Your task to perform on an android device: open chrome privacy settings Image 0: 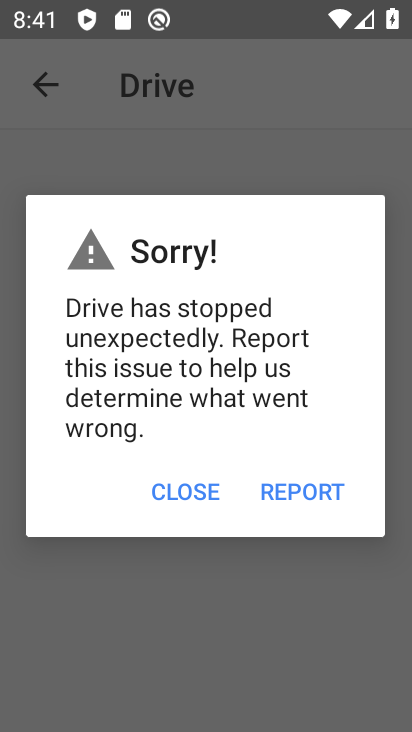
Step 0: press back button
Your task to perform on an android device: open chrome privacy settings Image 1: 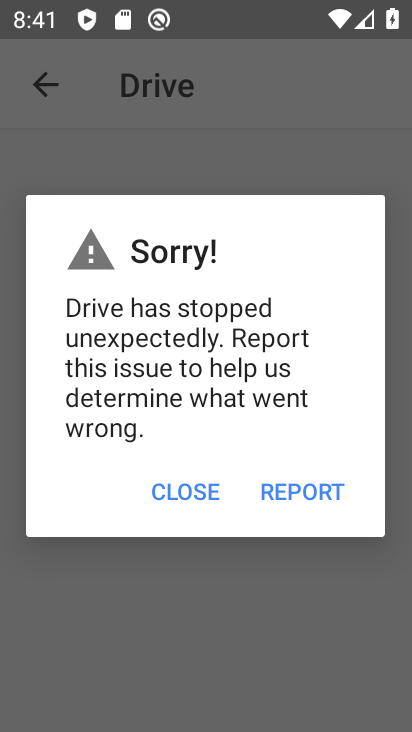
Step 1: press back button
Your task to perform on an android device: open chrome privacy settings Image 2: 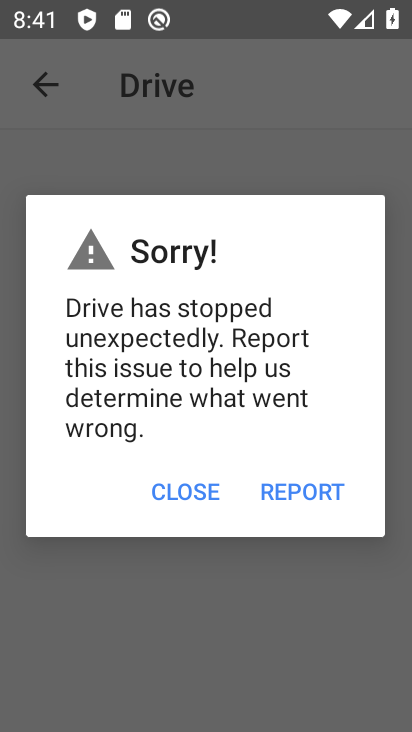
Step 2: press back button
Your task to perform on an android device: open chrome privacy settings Image 3: 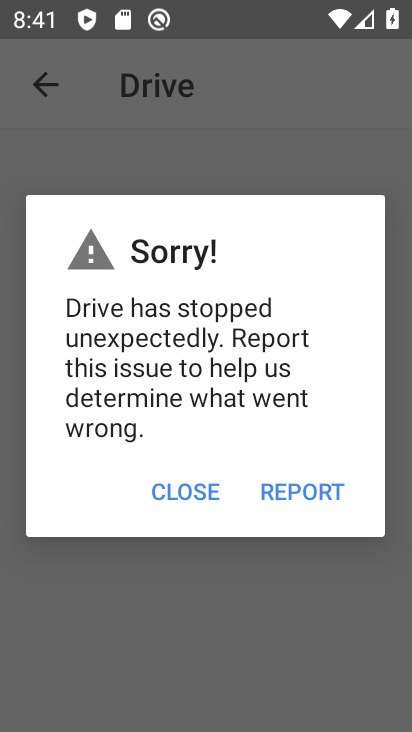
Step 3: press back button
Your task to perform on an android device: open chrome privacy settings Image 4: 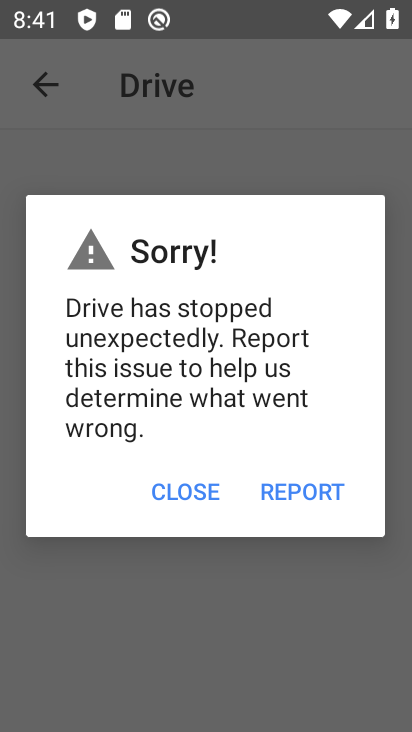
Step 4: press home button
Your task to perform on an android device: open chrome privacy settings Image 5: 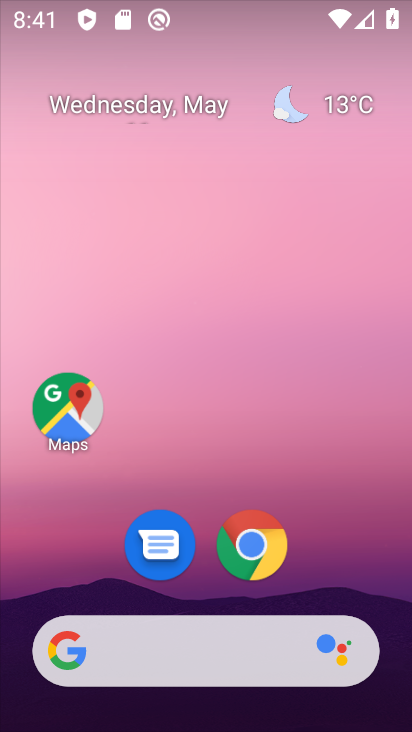
Step 5: drag from (333, 541) to (280, 4)
Your task to perform on an android device: open chrome privacy settings Image 6: 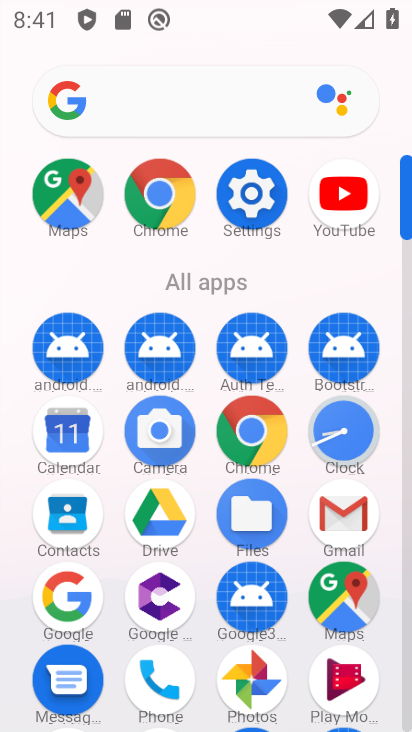
Step 6: drag from (16, 562) to (24, 224)
Your task to perform on an android device: open chrome privacy settings Image 7: 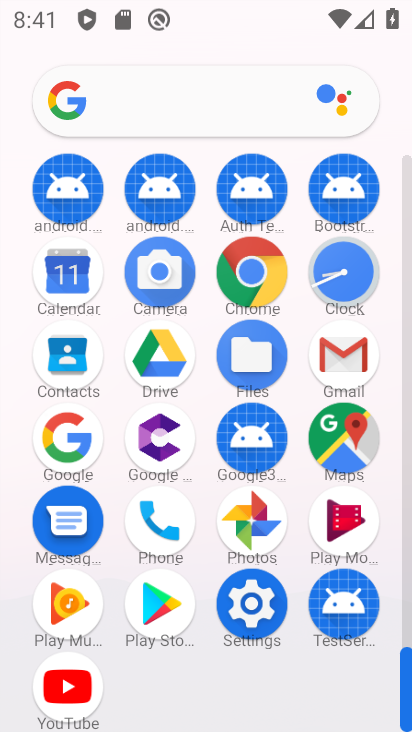
Step 7: click (249, 270)
Your task to perform on an android device: open chrome privacy settings Image 8: 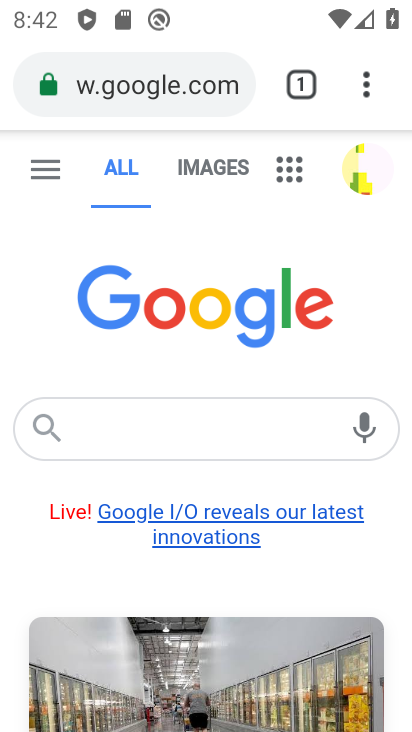
Step 8: drag from (364, 88) to (140, 599)
Your task to perform on an android device: open chrome privacy settings Image 9: 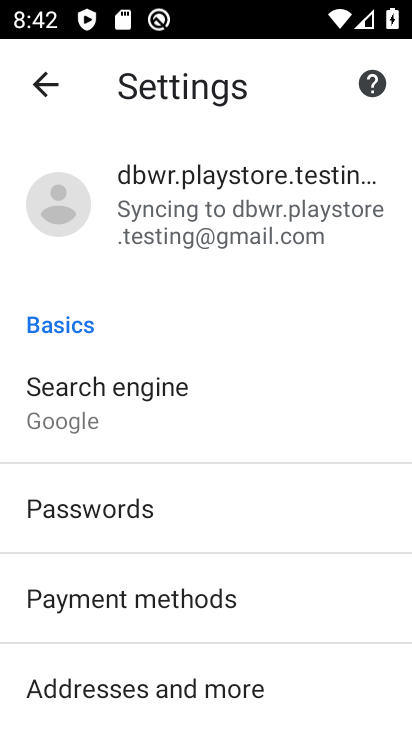
Step 9: drag from (244, 590) to (257, 257)
Your task to perform on an android device: open chrome privacy settings Image 10: 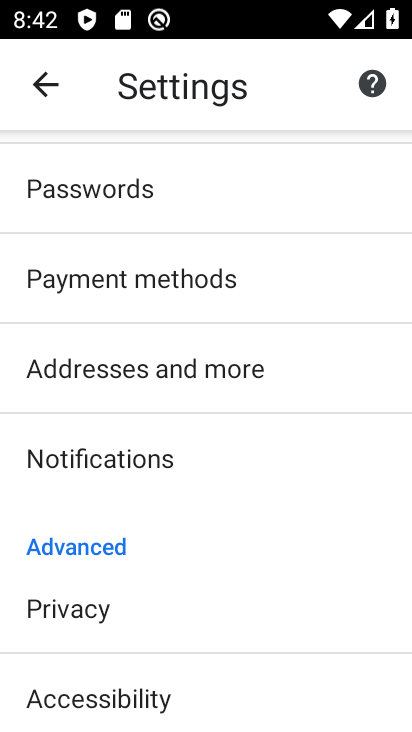
Step 10: drag from (263, 297) to (277, 581)
Your task to perform on an android device: open chrome privacy settings Image 11: 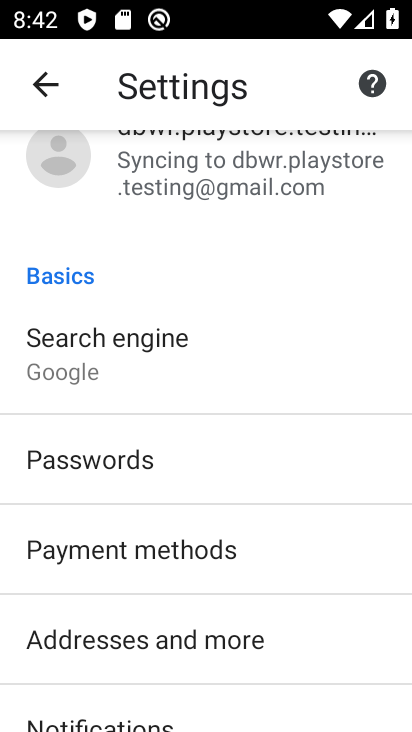
Step 11: drag from (252, 279) to (252, 489)
Your task to perform on an android device: open chrome privacy settings Image 12: 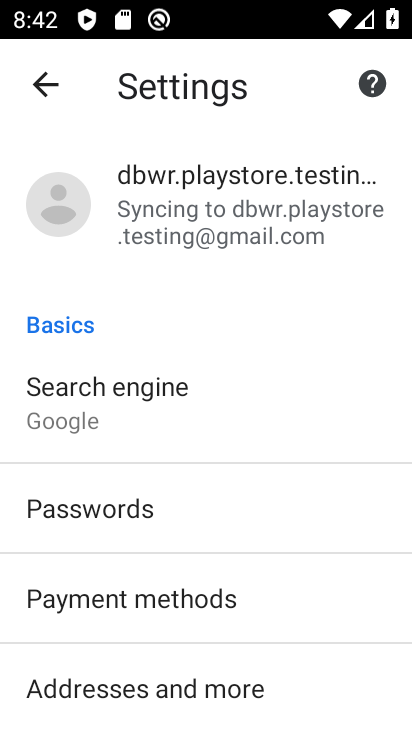
Step 12: drag from (291, 565) to (271, 315)
Your task to perform on an android device: open chrome privacy settings Image 13: 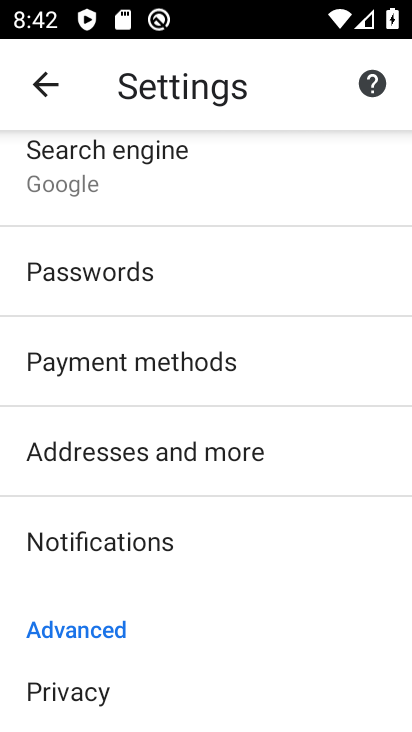
Step 13: drag from (280, 565) to (273, 263)
Your task to perform on an android device: open chrome privacy settings Image 14: 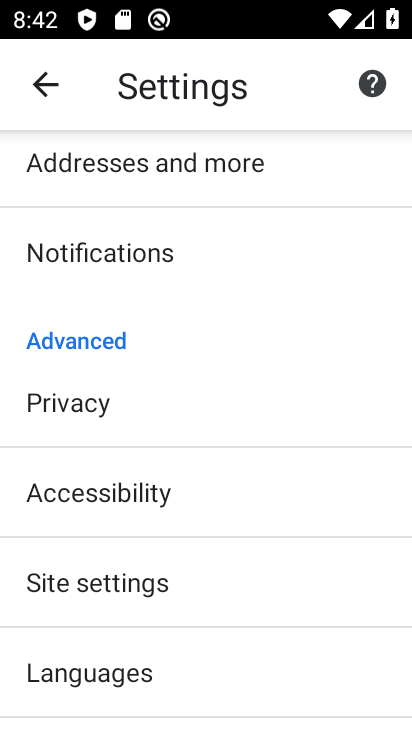
Step 14: click (122, 459)
Your task to perform on an android device: open chrome privacy settings Image 15: 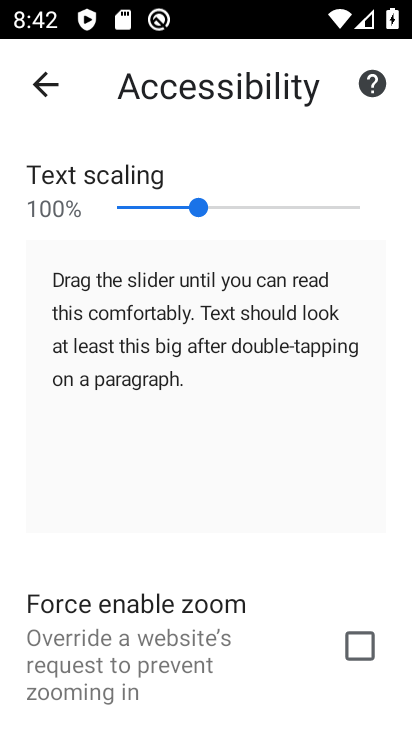
Step 15: task complete